Your task to perform on an android device: see tabs open on other devices in the chrome app Image 0: 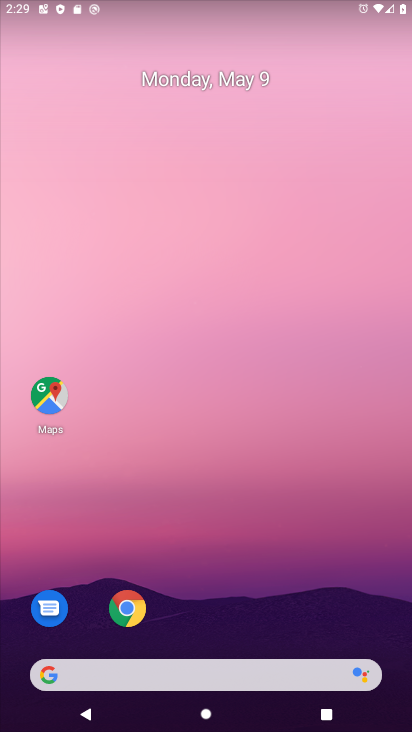
Step 0: click (129, 609)
Your task to perform on an android device: see tabs open on other devices in the chrome app Image 1: 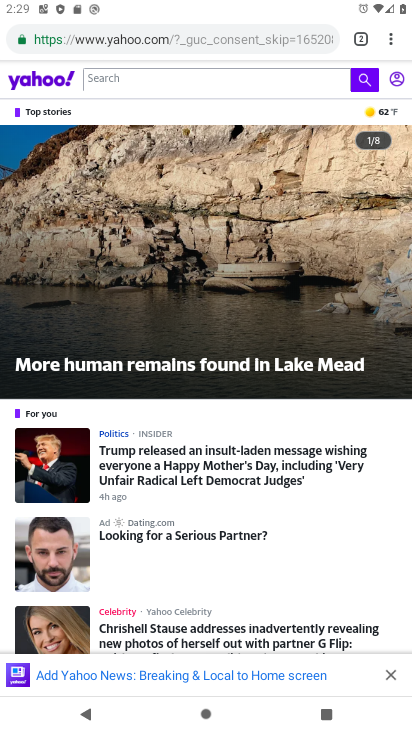
Step 1: click (389, 40)
Your task to perform on an android device: see tabs open on other devices in the chrome app Image 2: 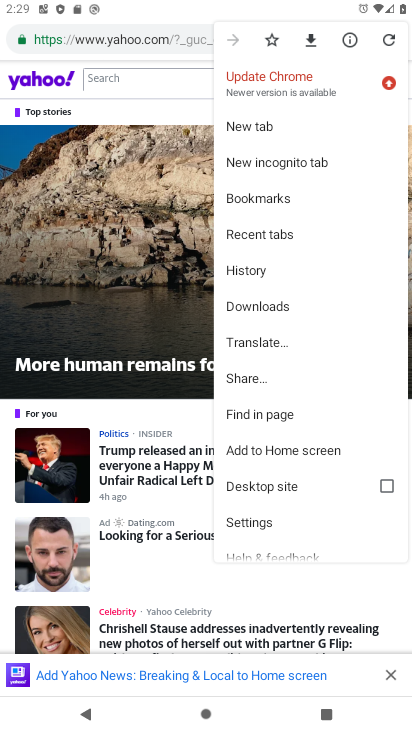
Step 2: click (292, 237)
Your task to perform on an android device: see tabs open on other devices in the chrome app Image 3: 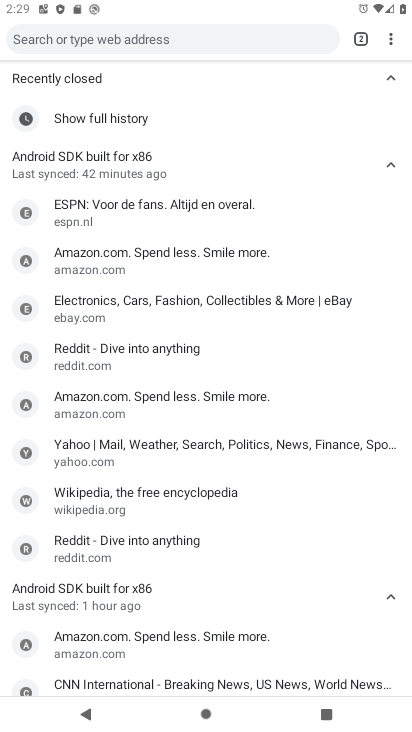
Step 3: task complete